Your task to perform on an android device: turn on airplane mode Image 0: 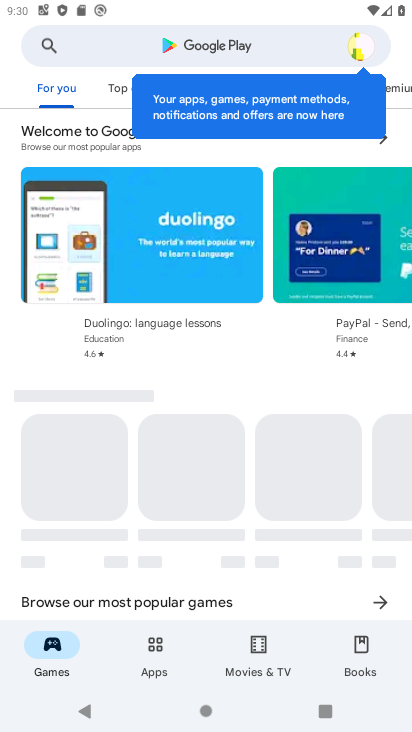
Step 0: press home button
Your task to perform on an android device: turn on airplane mode Image 1: 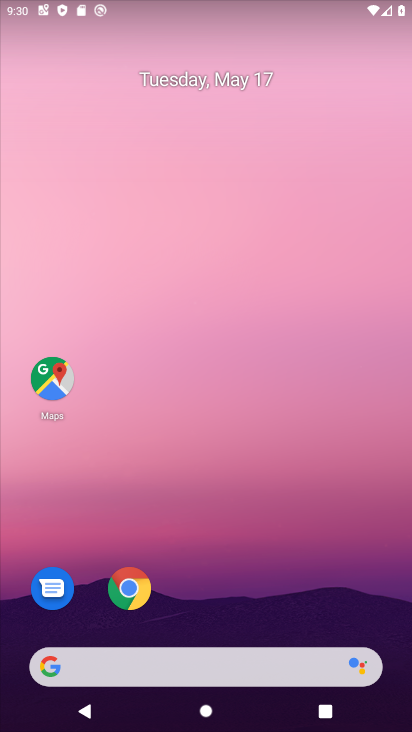
Step 1: drag from (215, 633) to (197, 59)
Your task to perform on an android device: turn on airplane mode Image 2: 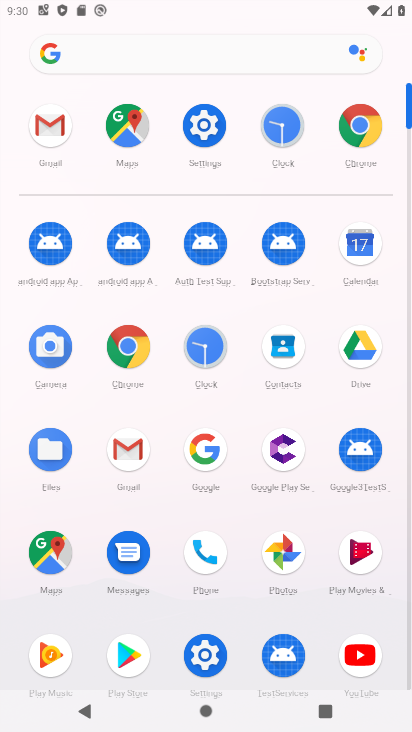
Step 2: click (208, 132)
Your task to perform on an android device: turn on airplane mode Image 3: 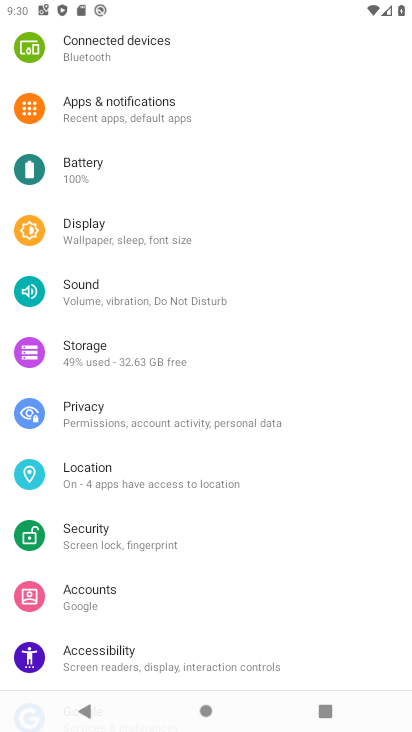
Step 3: drag from (205, 132) to (204, 598)
Your task to perform on an android device: turn on airplane mode Image 4: 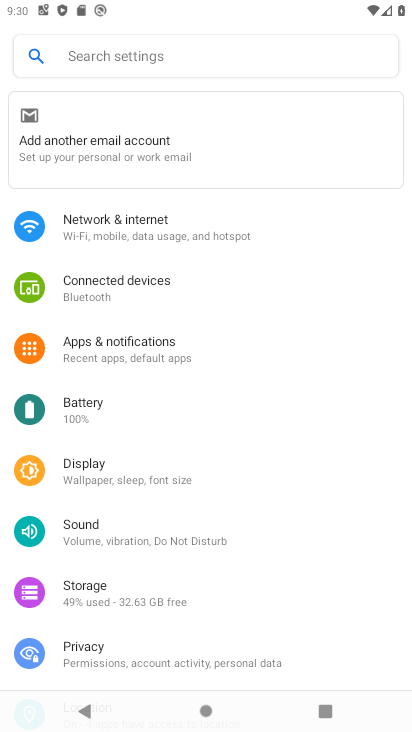
Step 4: click (101, 222)
Your task to perform on an android device: turn on airplane mode Image 5: 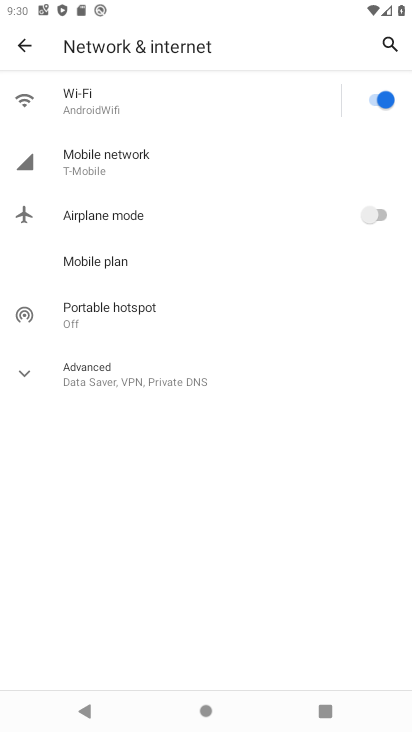
Step 5: click (382, 213)
Your task to perform on an android device: turn on airplane mode Image 6: 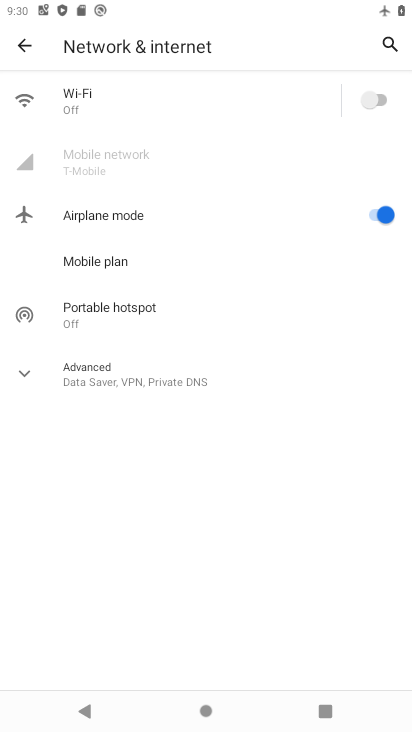
Step 6: task complete